Your task to perform on an android device: Open network settings Image 0: 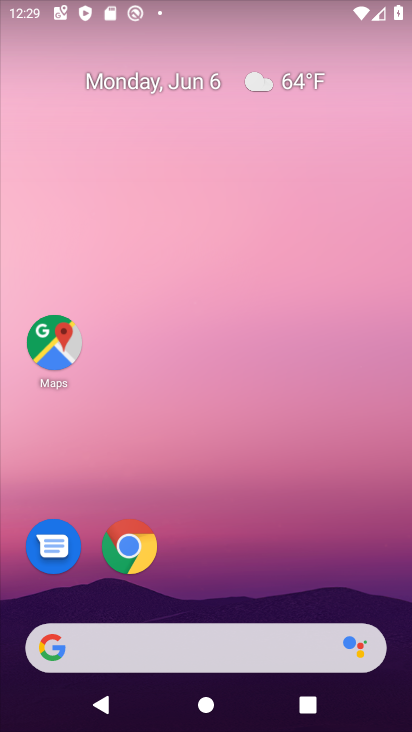
Step 0: drag from (231, 588) to (249, 303)
Your task to perform on an android device: Open network settings Image 1: 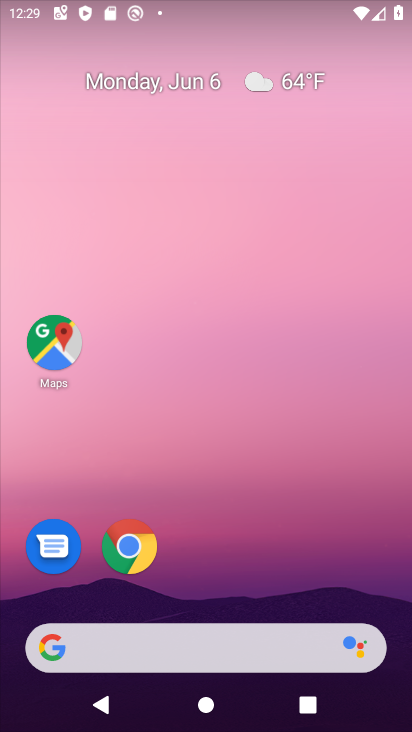
Step 1: drag from (188, 595) to (246, 236)
Your task to perform on an android device: Open network settings Image 2: 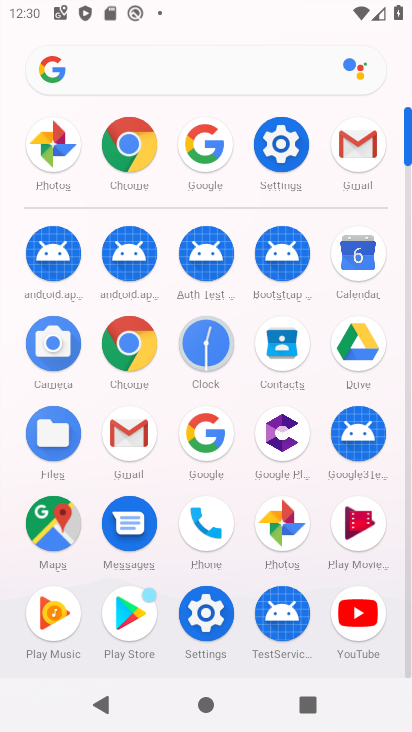
Step 2: click (276, 128)
Your task to perform on an android device: Open network settings Image 3: 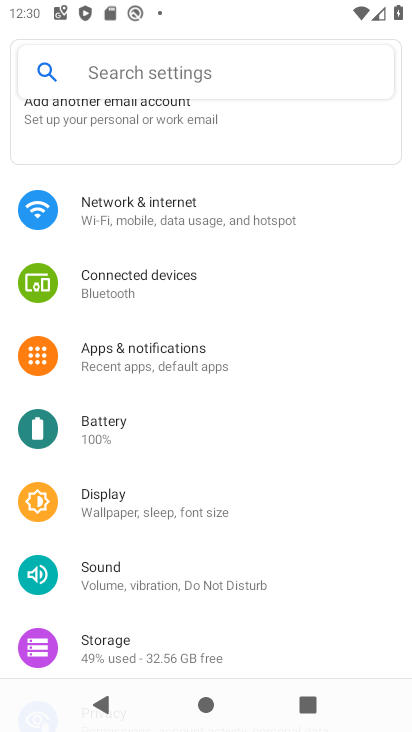
Step 3: click (142, 209)
Your task to perform on an android device: Open network settings Image 4: 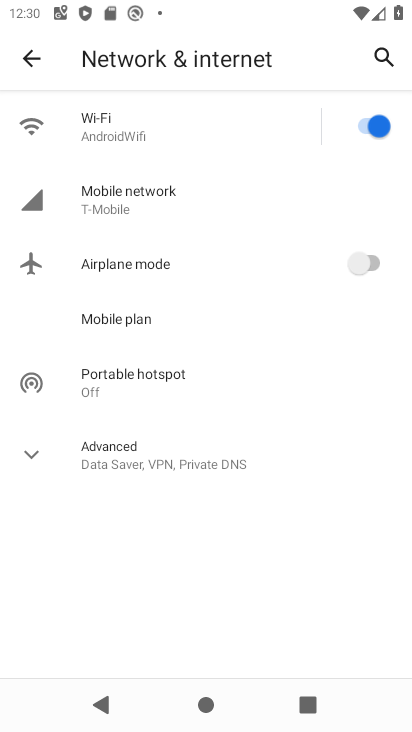
Step 4: task complete